Your task to perform on an android device: turn on priority inbox in the gmail app Image 0: 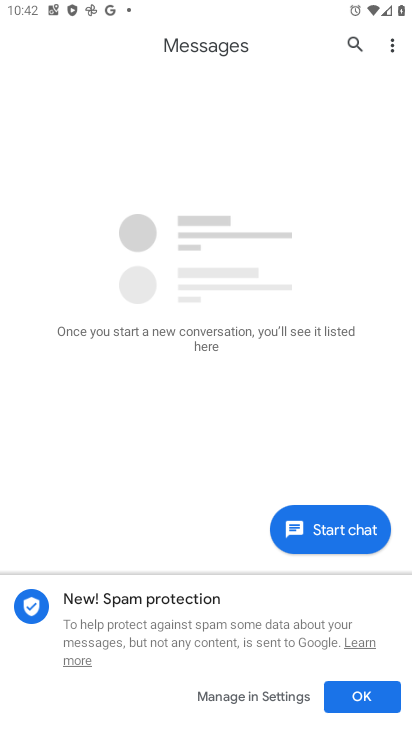
Step 0: press home button
Your task to perform on an android device: turn on priority inbox in the gmail app Image 1: 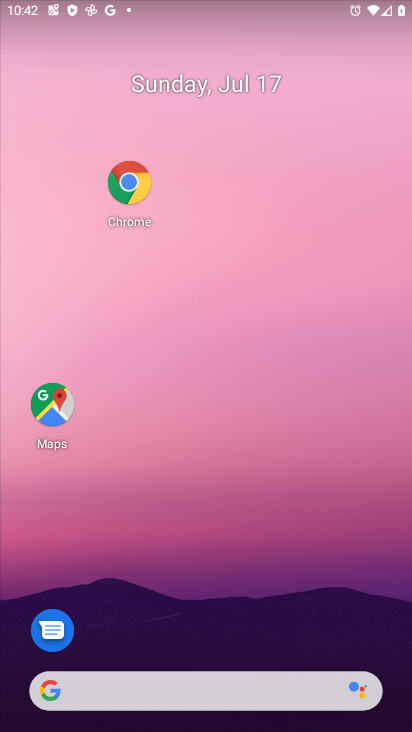
Step 1: drag from (183, 456) to (172, 132)
Your task to perform on an android device: turn on priority inbox in the gmail app Image 2: 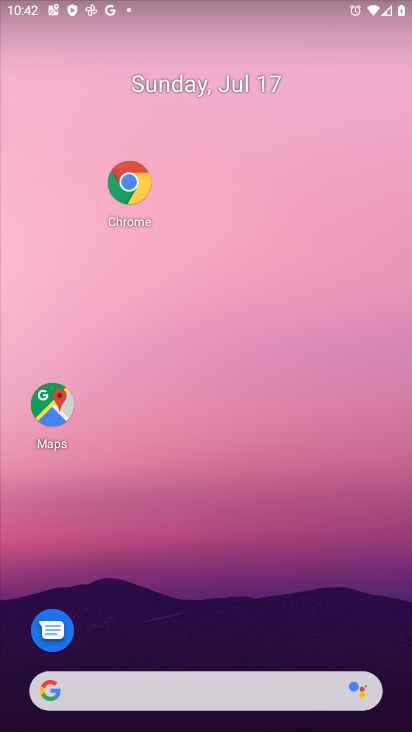
Step 2: drag from (183, 513) to (183, 0)
Your task to perform on an android device: turn on priority inbox in the gmail app Image 3: 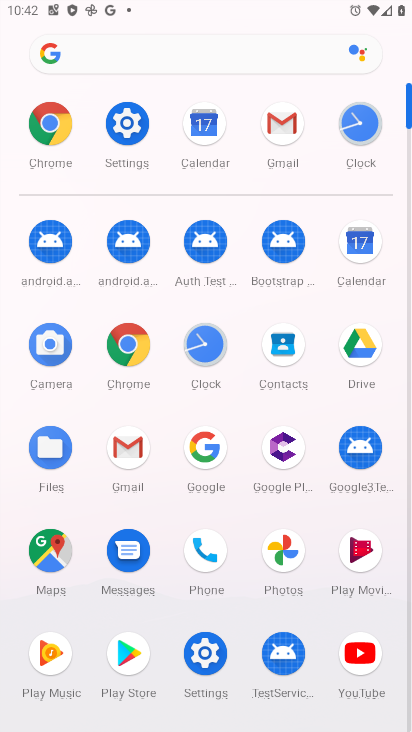
Step 3: click (282, 142)
Your task to perform on an android device: turn on priority inbox in the gmail app Image 4: 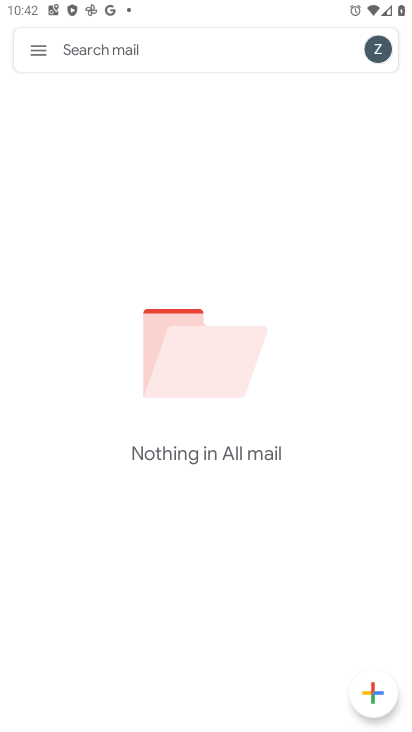
Step 4: click (30, 49)
Your task to perform on an android device: turn on priority inbox in the gmail app Image 5: 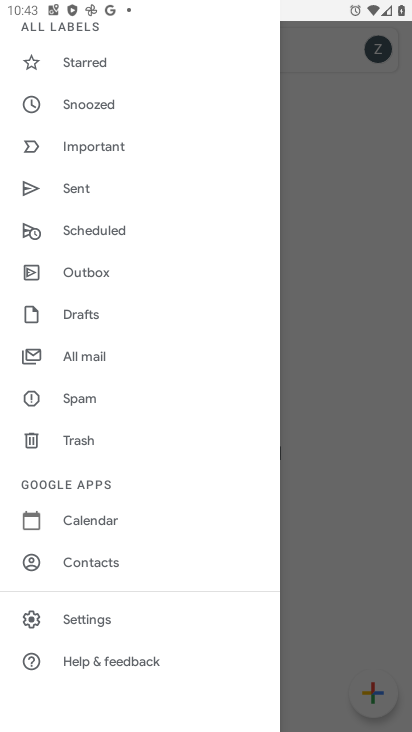
Step 5: click (67, 625)
Your task to perform on an android device: turn on priority inbox in the gmail app Image 6: 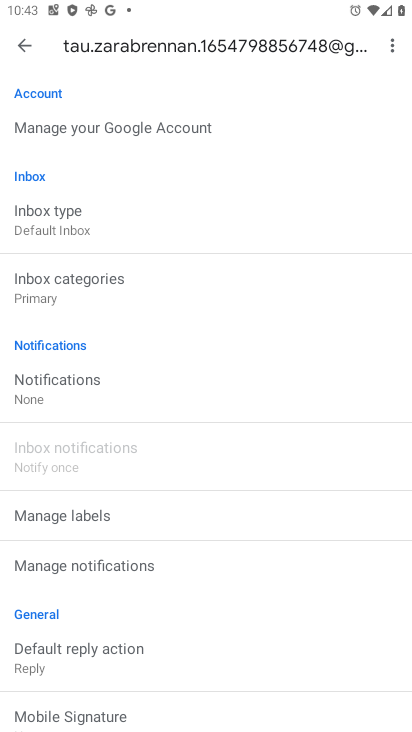
Step 6: click (55, 224)
Your task to perform on an android device: turn on priority inbox in the gmail app Image 7: 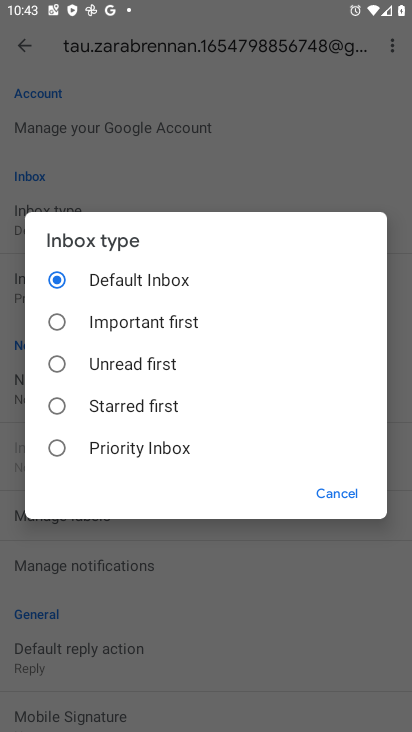
Step 7: click (55, 456)
Your task to perform on an android device: turn on priority inbox in the gmail app Image 8: 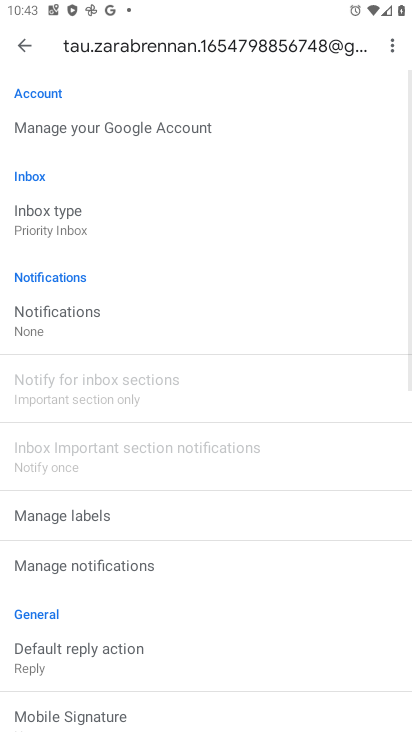
Step 8: task complete